Your task to perform on an android device: turn pop-ups on in chrome Image 0: 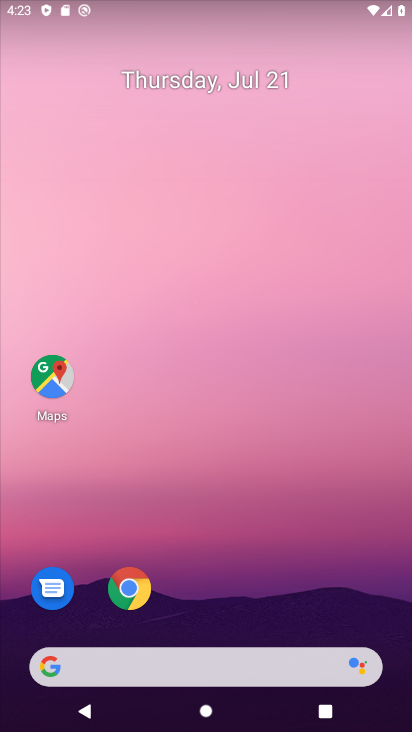
Step 0: click (133, 578)
Your task to perform on an android device: turn pop-ups on in chrome Image 1: 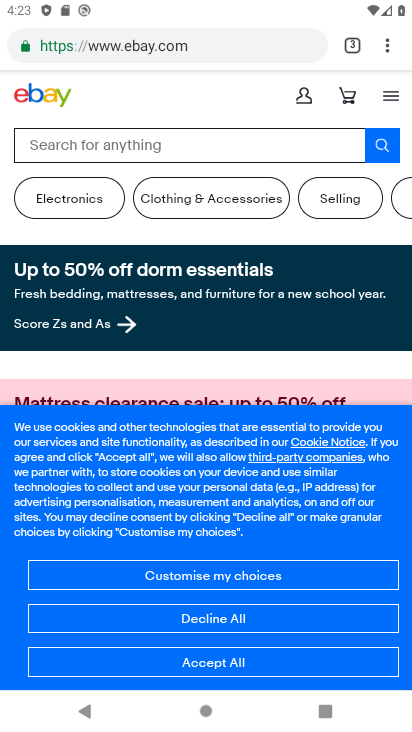
Step 1: press home button
Your task to perform on an android device: turn pop-ups on in chrome Image 2: 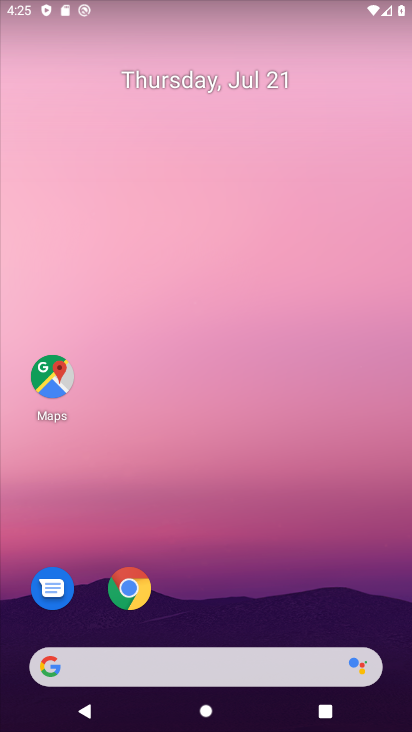
Step 2: click (225, 548)
Your task to perform on an android device: turn pop-ups on in chrome Image 3: 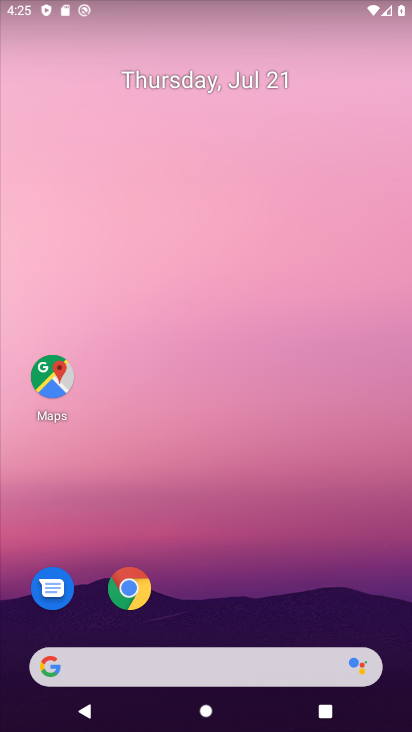
Step 3: click (225, 548)
Your task to perform on an android device: turn pop-ups on in chrome Image 4: 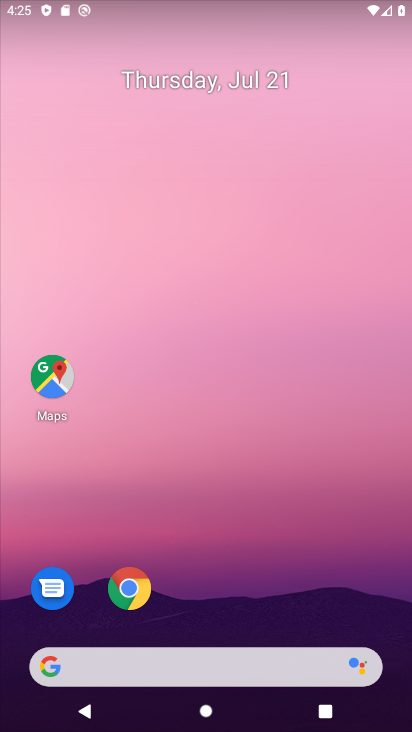
Step 4: click (128, 588)
Your task to perform on an android device: turn pop-ups on in chrome Image 5: 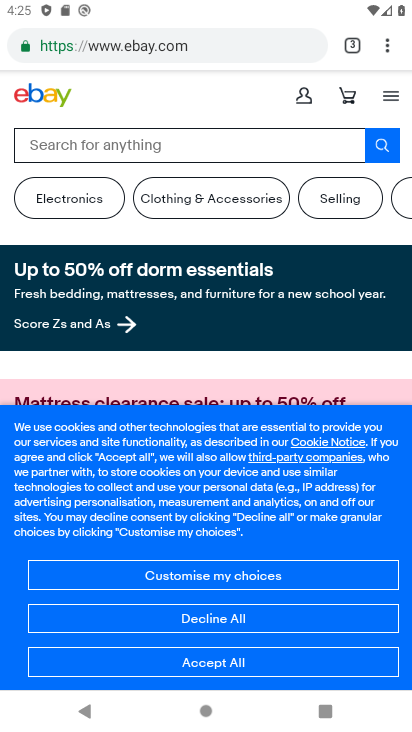
Step 5: click (385, 53)
Your task to perform on an android device: turn pop-ups on in chrome Image 6: 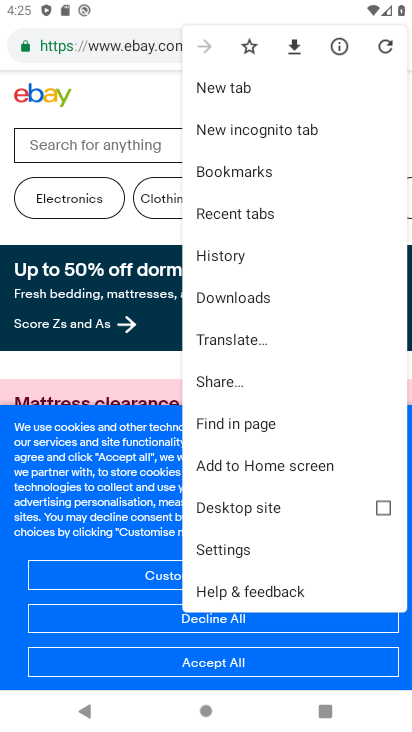
Step 6: click (218, 551)
Your task to perform on an android device: turn pop-ups on in chrome Image 7: 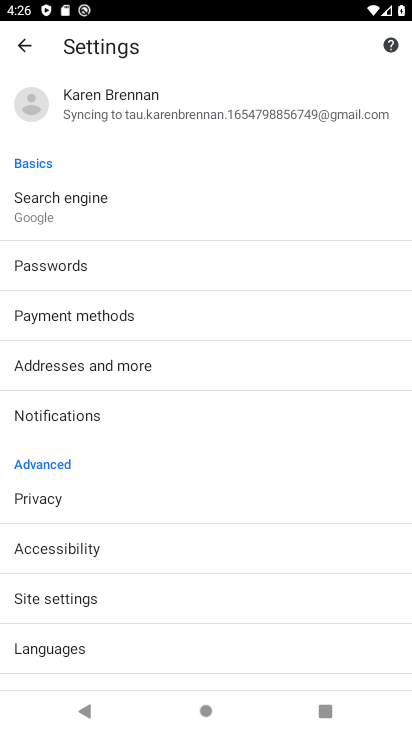
Step 7: task complete